Your task to perform on an android device: find snoozed emails in the gmail app Image 0: 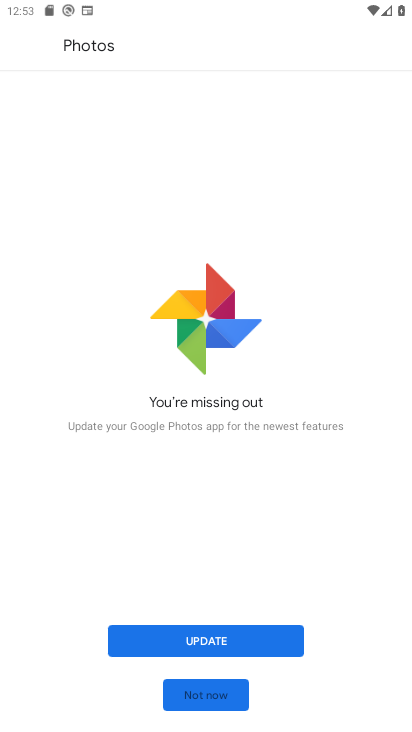
Step 0: press home button
Your task to perform on an android device: find snoozed emails in the gmail app Image 1: 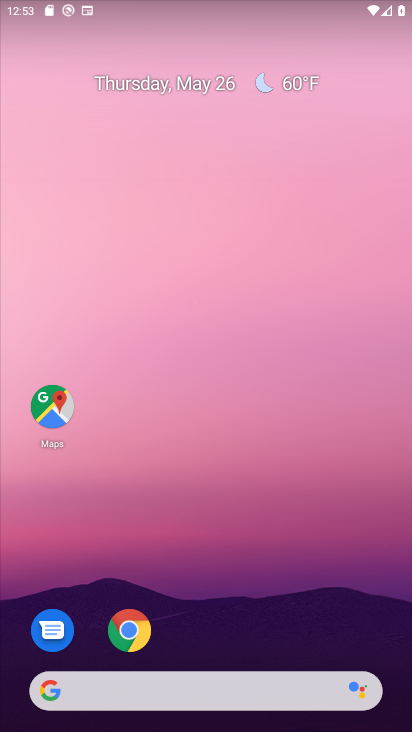
Step 1: drag from (342, 613) to (282, 69)
Your task to perform on an android device: find snoozed emails in the gmail app Image 2: 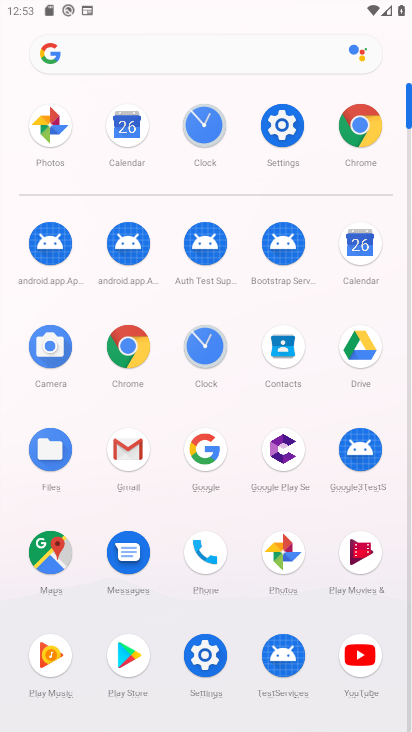
Step 2: click (138, 444)
Your task to perform on an android device: find snoozed emails in the gmail app Image 3: 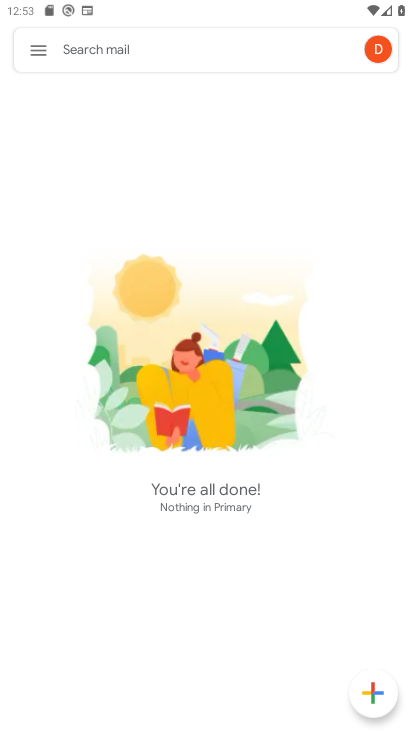
Step 3: click (51, 56)
Your task to perform on an android device: find snoozed emails in the gmail app Image 4: 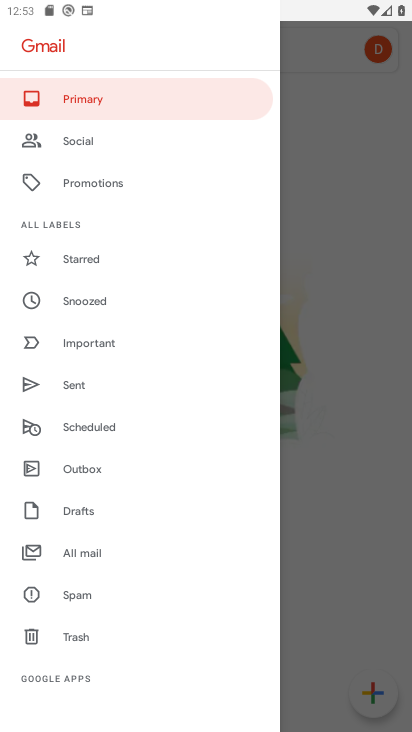
Step 4: click (88, 300)
Your task to perform on an android device: find snoozed emails in the gmail app Image 5: 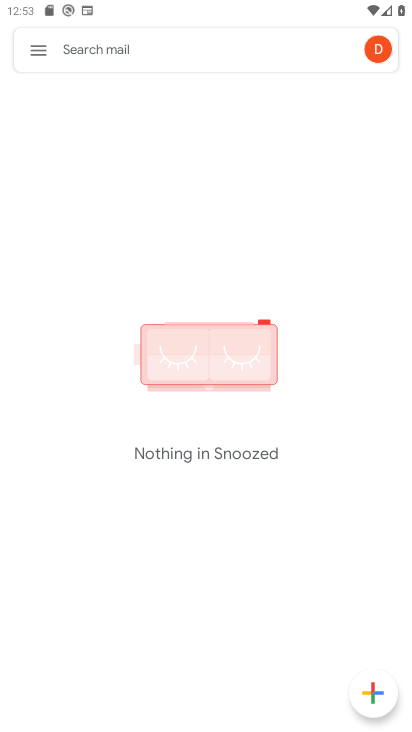
Step 5: task complete